Your task to perform on an android device: Go to internet settings Image 0: 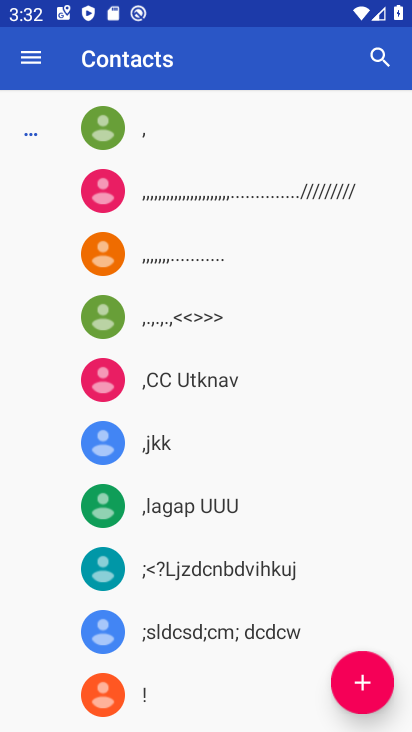
Step 0: press home button
Your task to perform on an android device: Go to internet settings Image 1: 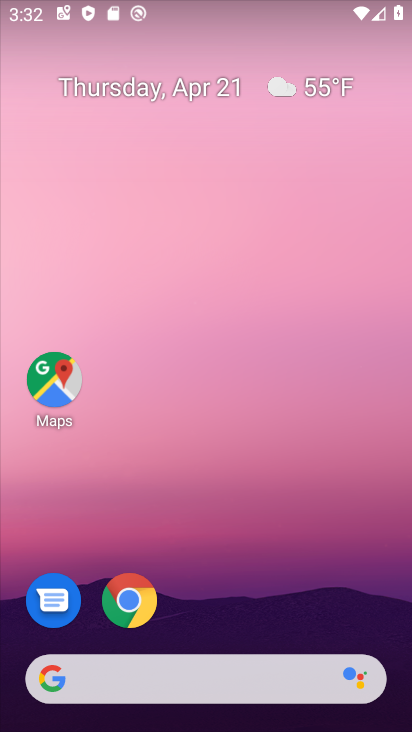
Step 1: drag from (185, 671) to (294, 83)
Your task to perform on an android device: Go to internet settings Image 2: 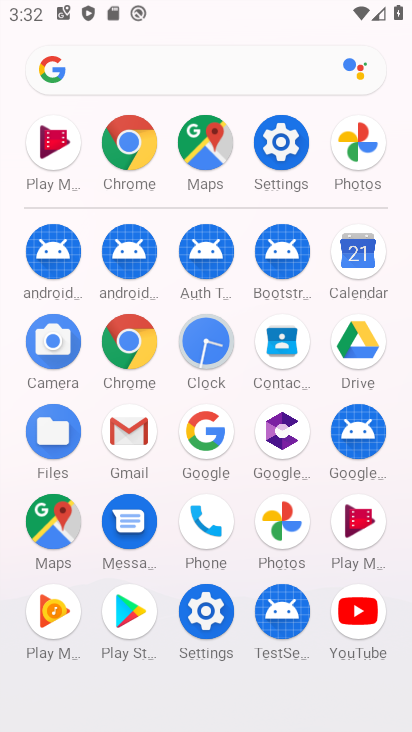
Step 2: click (285, 146)
Your task to perform on an android device: Go to internet settings Image 3: 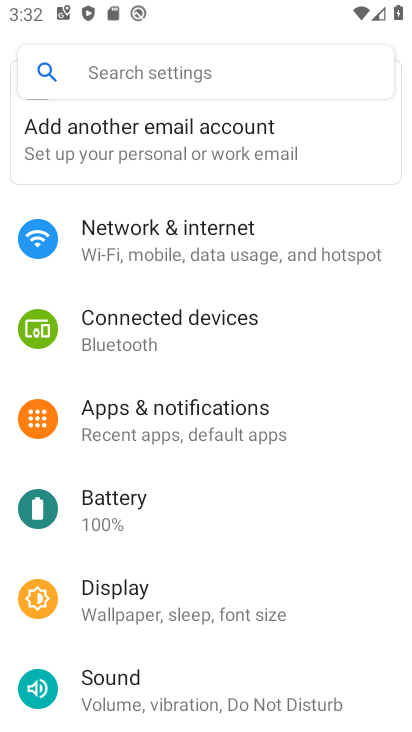
Step 3: click (206, 244)
Your task to perform on an android device: Go to internet settings Image 4: 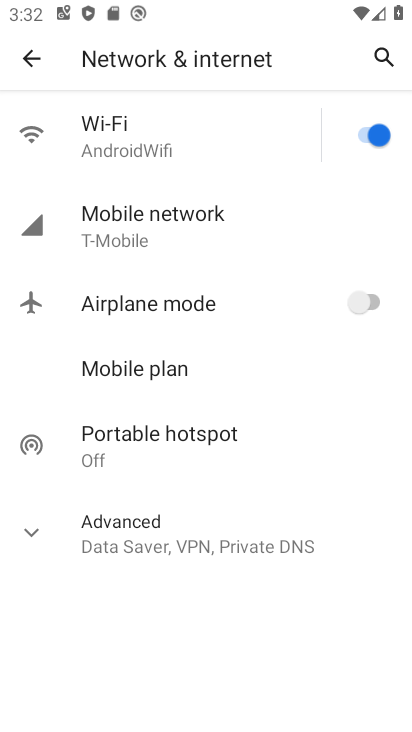
Step 4: task complete